Your task to perform on an android device: change timer sound Image 0: 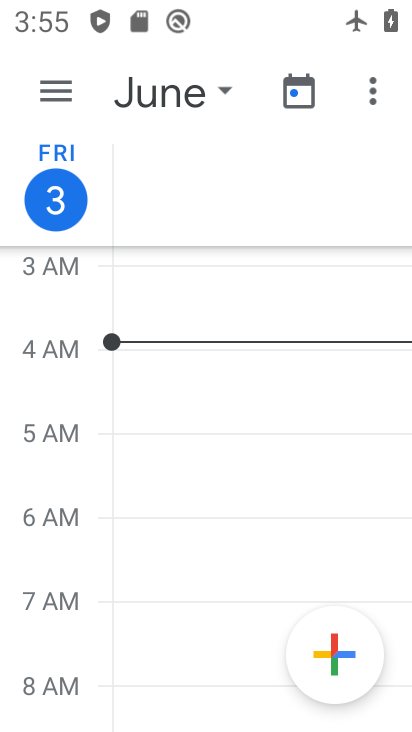
Step 0: press home button
Your task to perform on an android device: change timer sound Image 1: 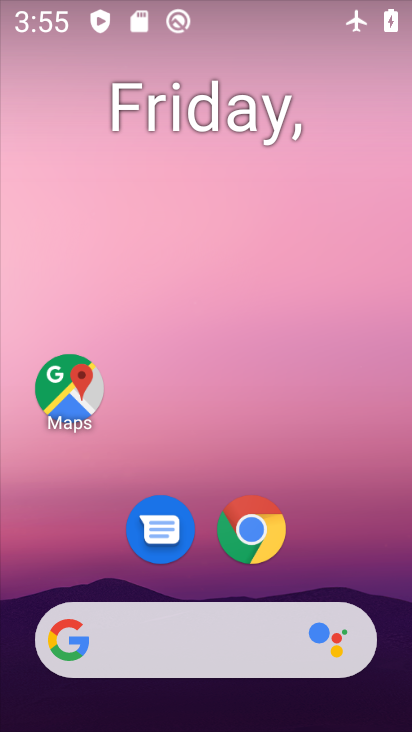
Step 1: drag from (77, 640) to (204, 174)
Your task to perform on an android device: change timer sound Image 2: 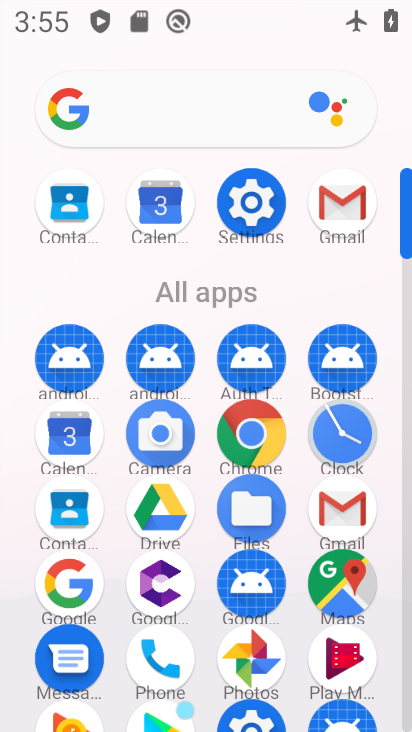
Step 2: drag from (162, 603) to (228, 382)
Your task to perform on an android device: change timer sound Image 3: 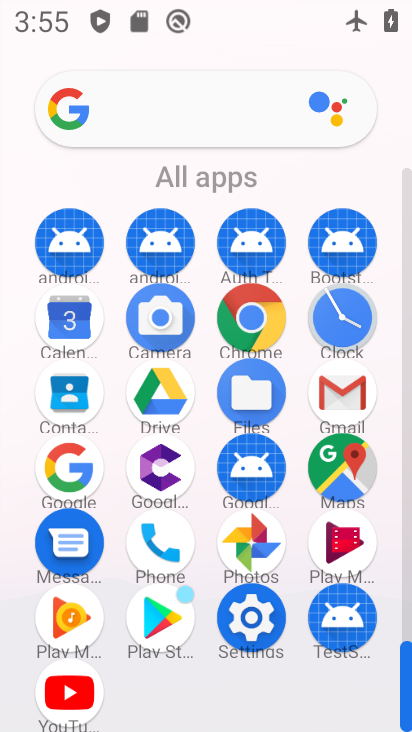
Step 3: click (344, 307)
Your task to perform on an android device: change timer sound Image 4: 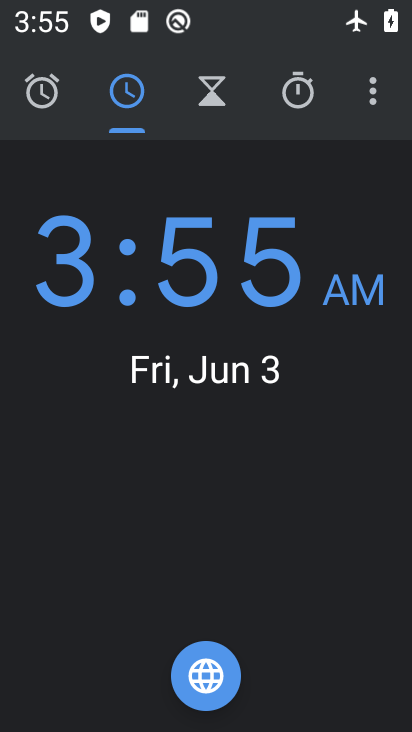
Step 4: click (374, 78)
Your task to perform on an android device: change timer sound Image 5: 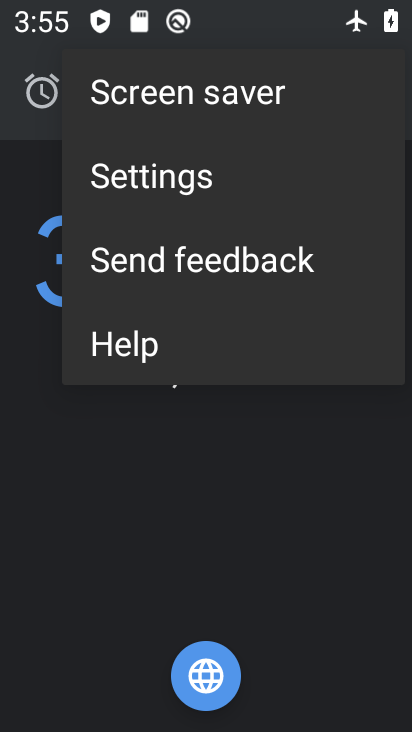
Step 5: click (266, 172)
Your task to perform on an android device: change timer sound Image 6: 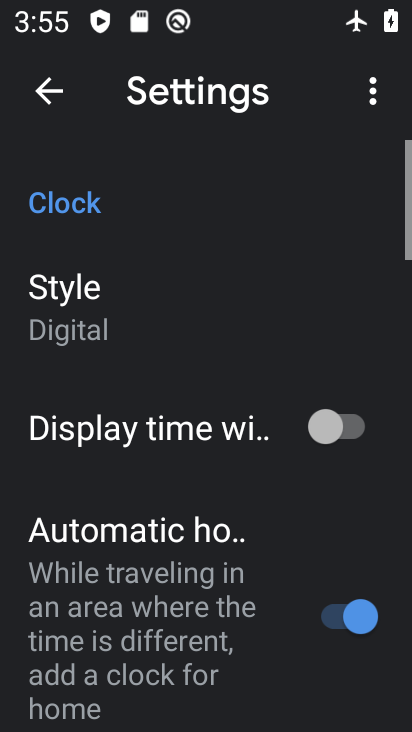
Step 6: drag from (243, 549) to (338, 73)
Your task to perform on an android device: change timer sound Image 7: 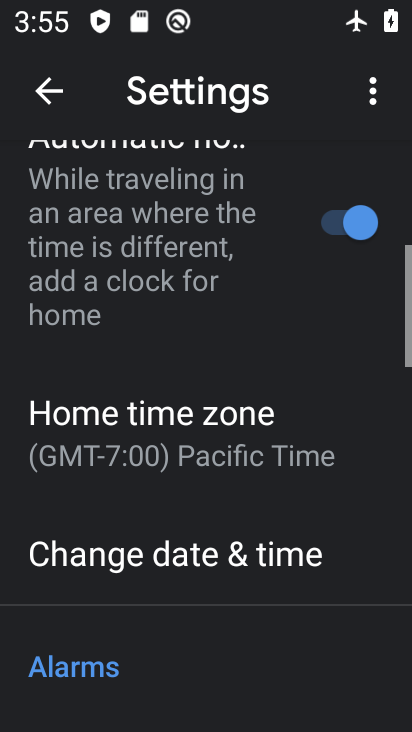
Step 7: drag from (200, 605) to (315, 147)
Your task to perform on an android device: change timer sound Image 8: 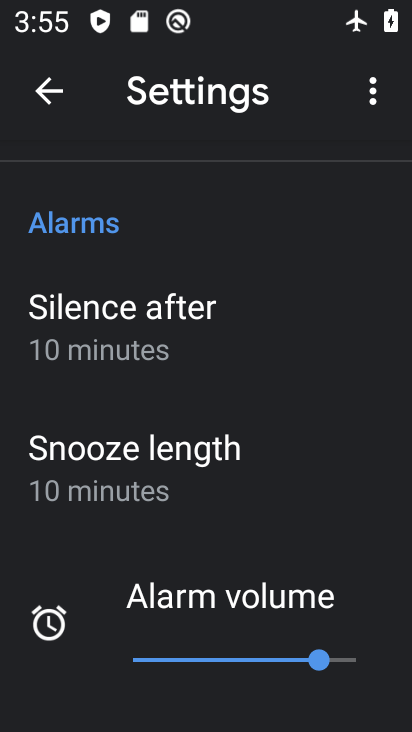
Step 8: drag from (183, 589) to (291, 199)
Your task to perform on an android device: change timer sound Image 9: 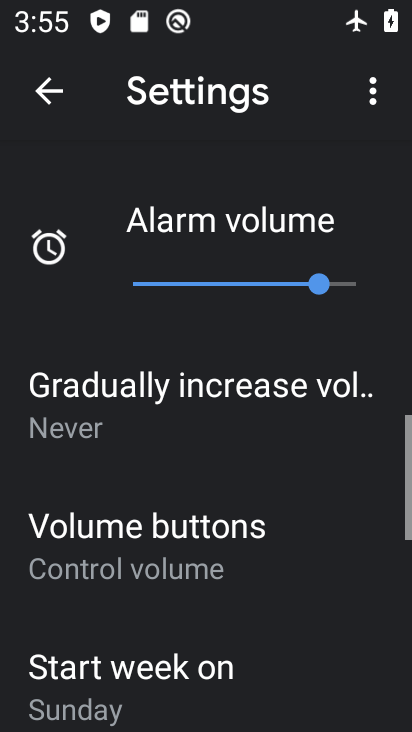
Step 9: drag from (212, 594) to (336, 294)
Your task to perform on an android device: change timer sound Image 10: 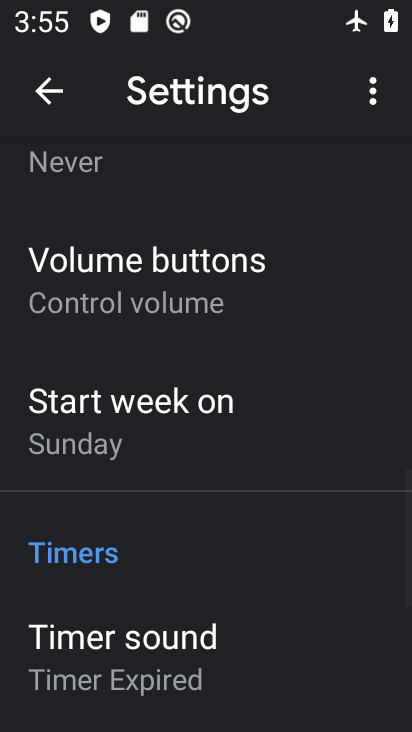
Step 10: click (192, 630)
Your task to perform on an android device: change timer sound Image 11: 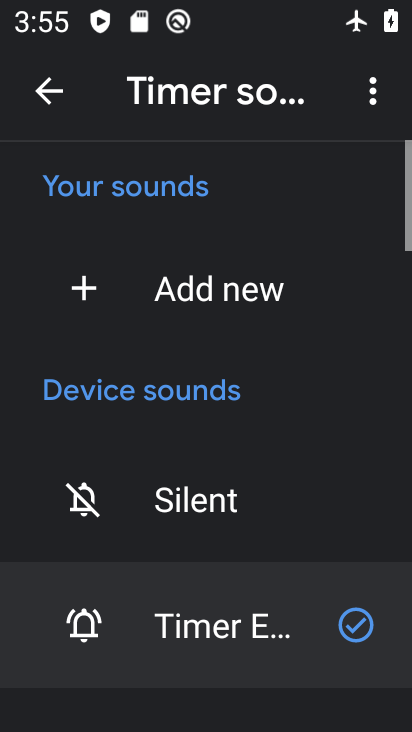
Step 11: drag from (107, 619) to (289, 146)
Your task to perform on an android device: change timer sound Image 12: 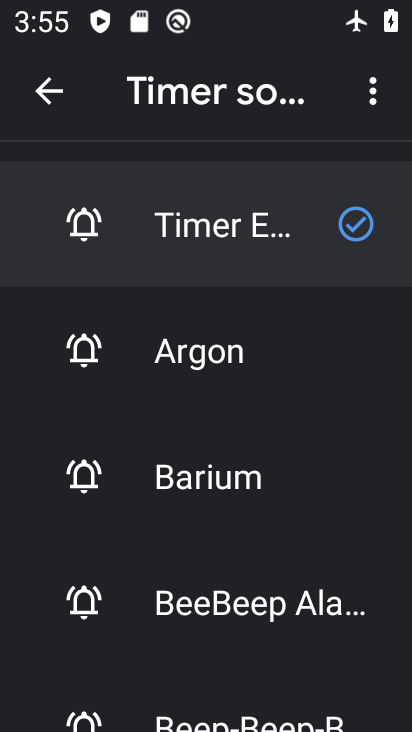
Step 12: click (253, 639)
Your task to perform on an android device: change timer sound Image 13: 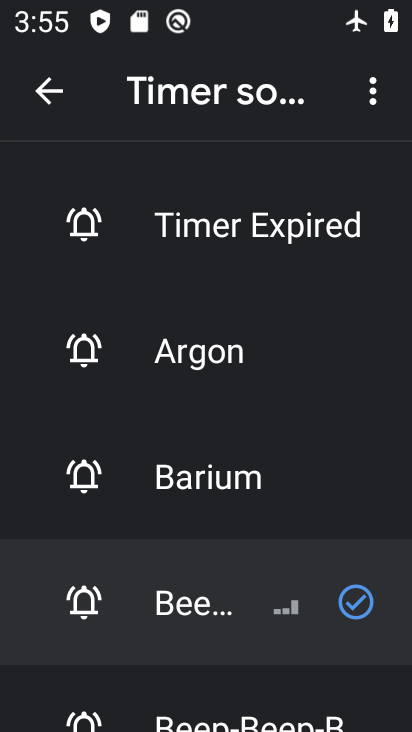
Step 13: task complete